Your task to perform on an android device: open wifi settings Image 0: 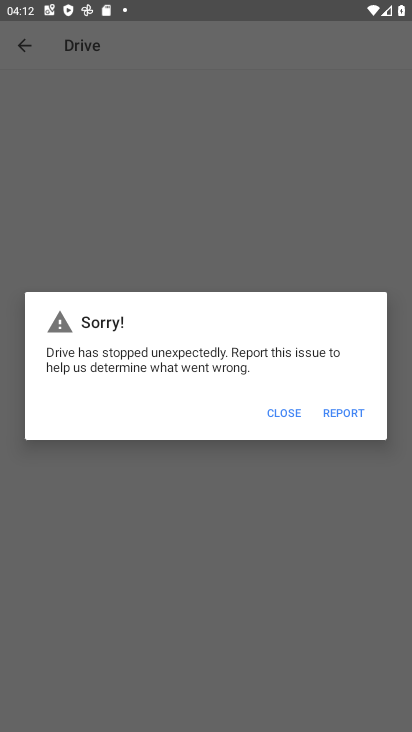
Step 0: press home button
Your task to perform on an android device: open wifi settings Image 1: 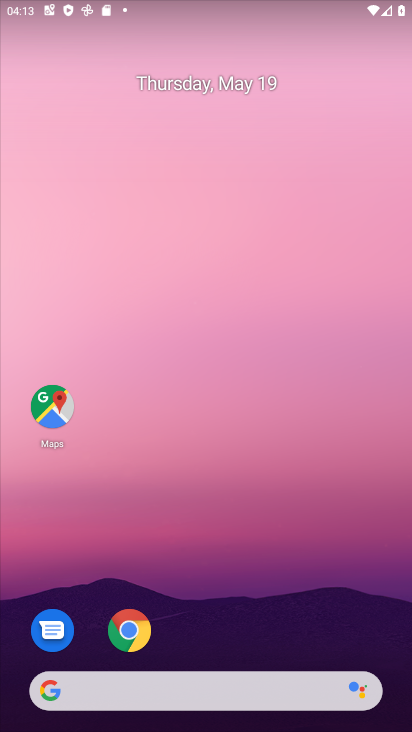
Step 1: drag from (295, 639) to (304, 82)
Your task to perform on an android device: open wifi settings Image 2: 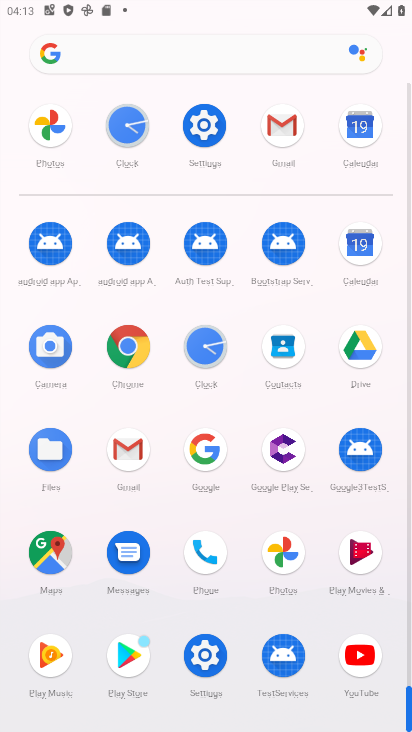
Step 2: click (201, 658)
Your task to perform on an android device: open wifi settings Image 3: 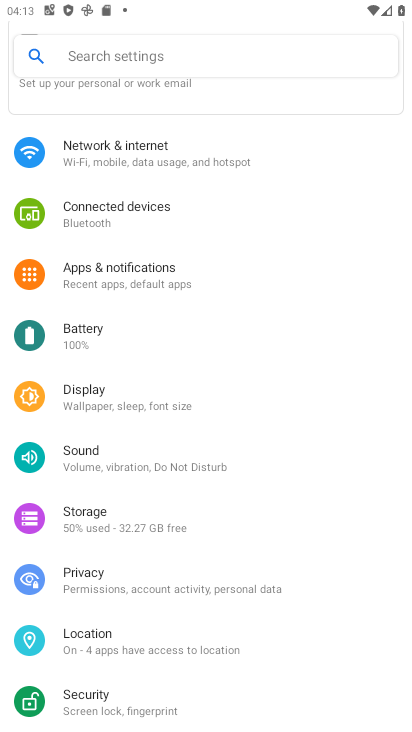
Step 3: click (100, 140)
Your task to perform on an android device: open wifi settings Image 4: 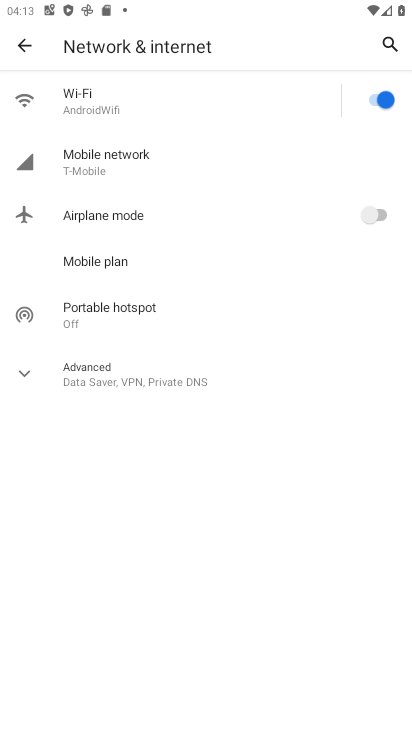
Step 4: click (74, 93)
Your task to perform on an android device: open wifi settings Image 5: 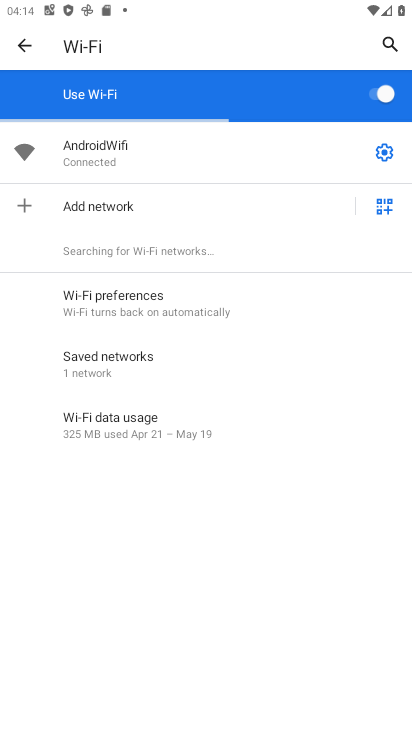
Step 5: task complete